Your task to perform on an android device: What is the recent news? Image 0: 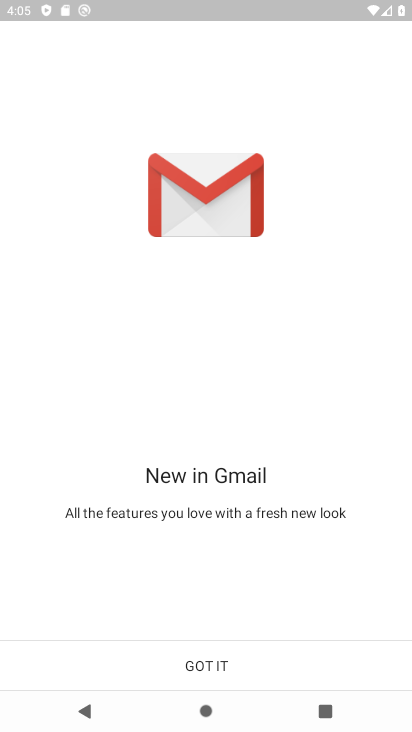
Step 0: press home button
Your task to perform on an android device: What is the recent news? Image 1: 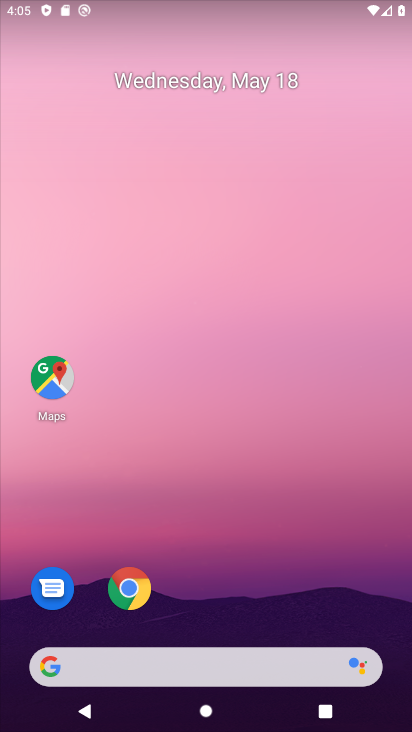
Step 1: drag from (248, 542) to (275, 138)
Your task to perform on an android device: What is the recent news? Image 2: 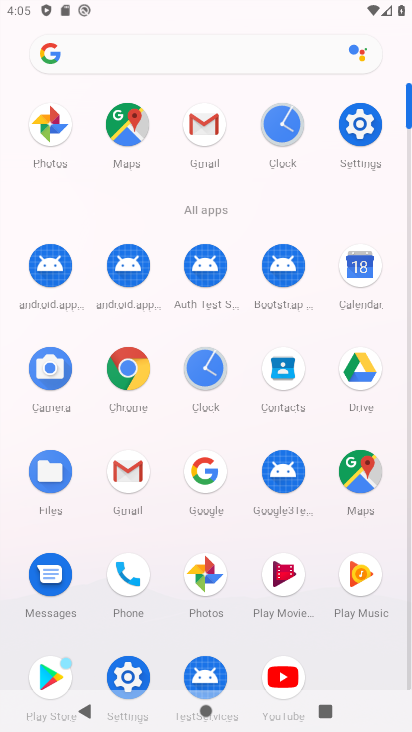
Step 2: click (123, 367)
Your task to perform on an android device: What is the recent news? Image 3: 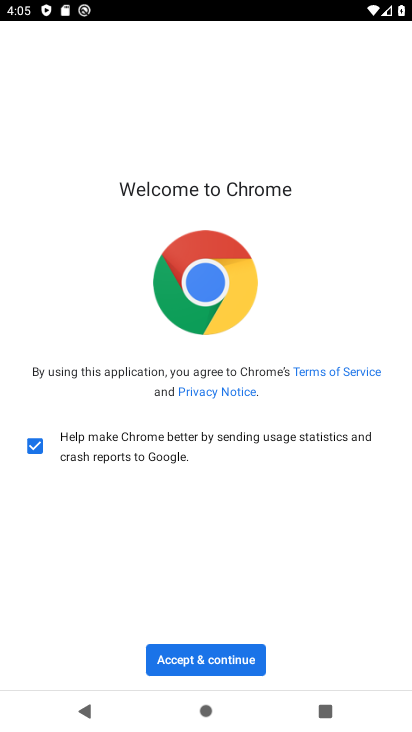
Step 3: click (238, 672)
Your task to perform on an android device: What is the recent news? Image 4: 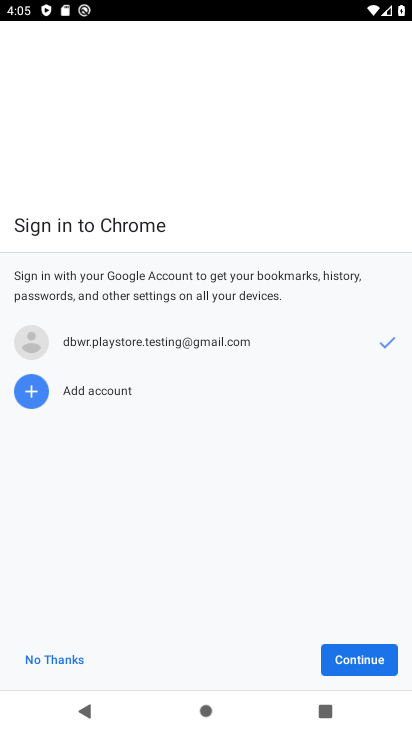
Step 4: click (376, 657)
Your task to perform on an android device: What is the recent news? Image 5: 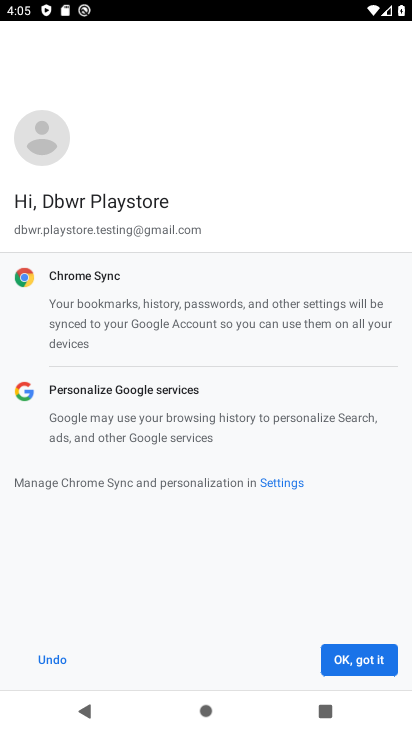
Step 5: click (370, 657)
Your task to perform on an android device: What is the recent news? Image 6: 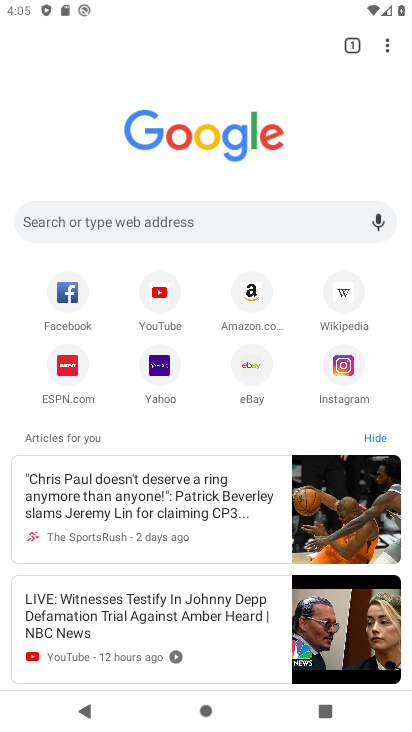
Step 6: click (190, 226)
Your task to perform on an android device: What is the recent news? Image 7: 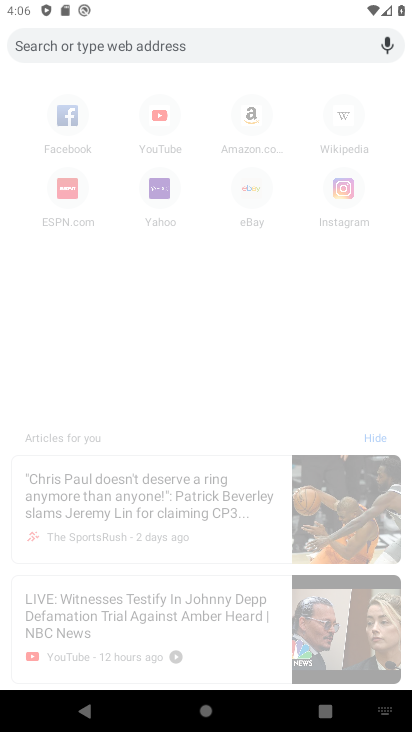
Step 7: type "news"
Your task to perform on an android device: What is the recent news? Image 8: 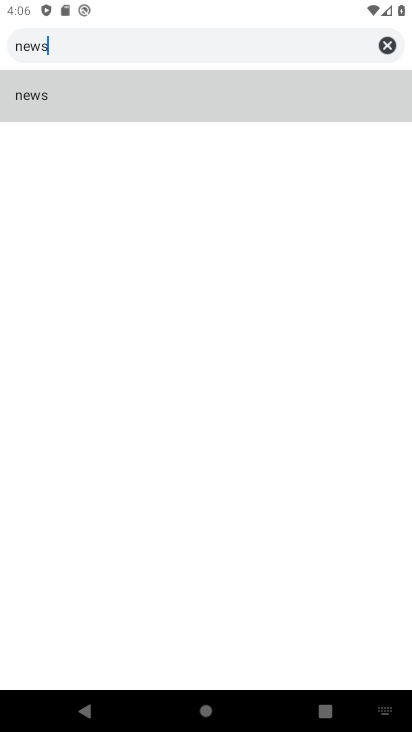
Step 8: type ""
Your task to perform on an android device: What is the recent news? Image 9: 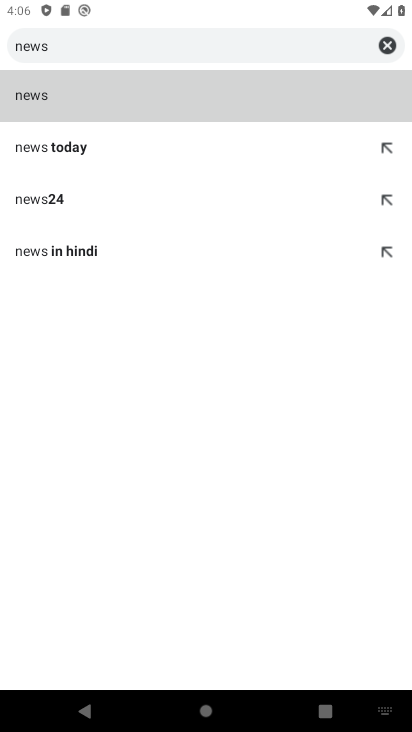
Step 9: click (47, 107)
Your task to perform on an android device: What is the recent news? Image 10: 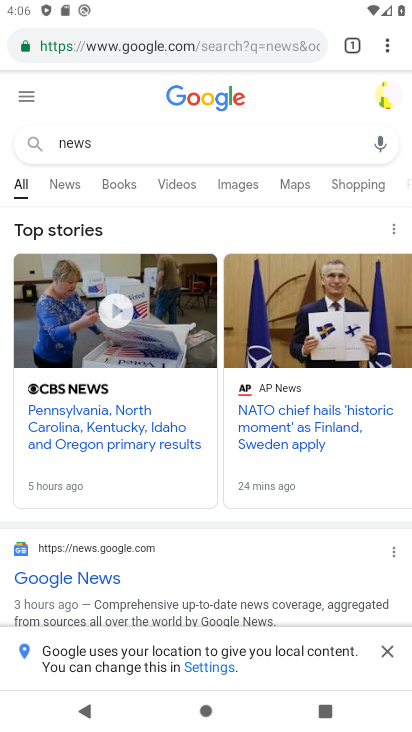
Step 10: click (72, 190)
Your task to perform on an android device: What is the recent news? Image 11: 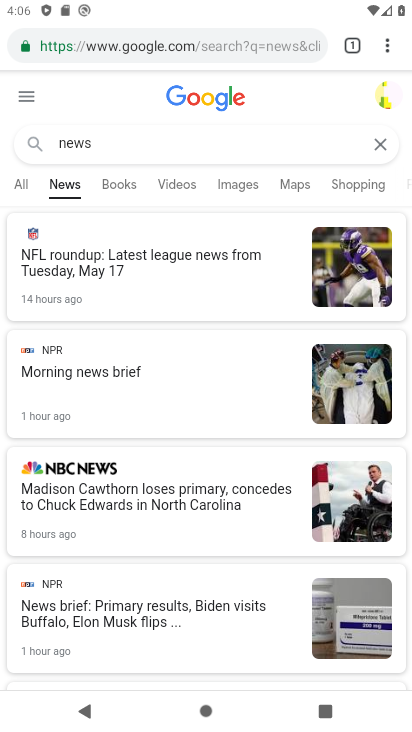
Step 11: task complete